Your task to perform on an android device: turn off location Image 0: 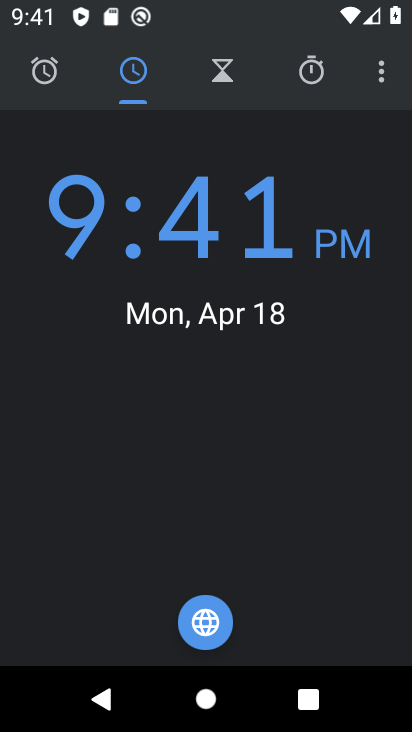
Step 0: press home button
Your task to perform on an android device: turn off location Image 1: 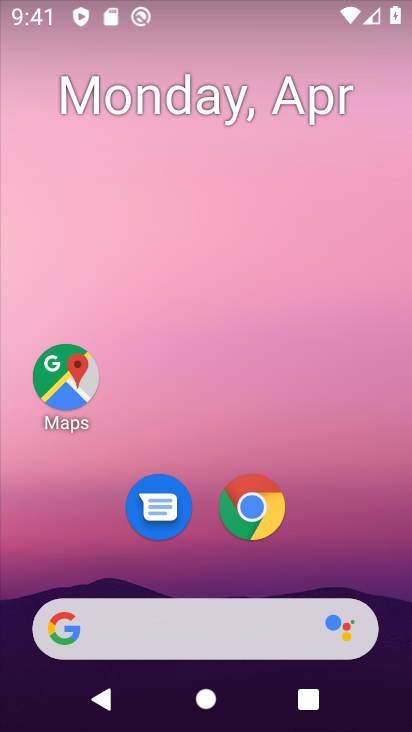
Step 1: drag from (332, 543) to (280, 188)
Your task to perform on an android device: turn off location Image 2: 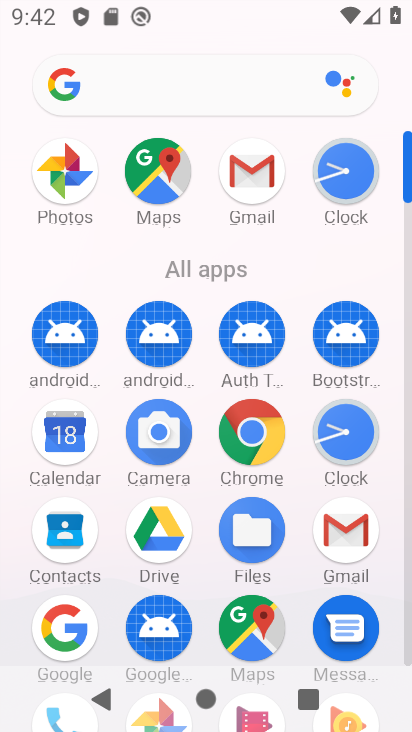
Step 2: drag from (205, 285) to (204, 168)
Your task to perform on an android device: turn off location Image 3: 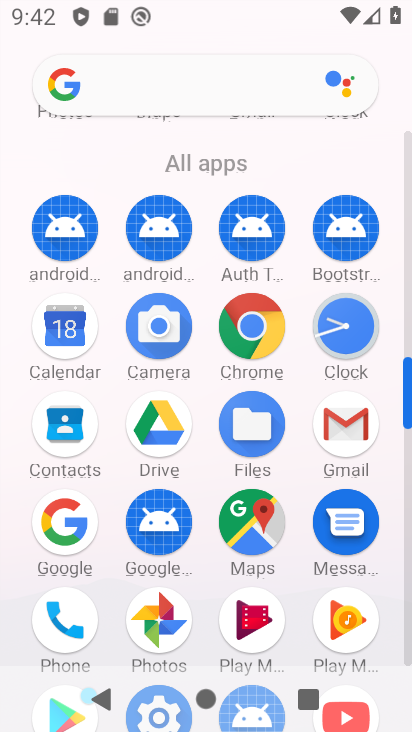
Step 3: drag from (200, 572) to (199, 315)
Your task to perform on an android device: turn off location Image 4: 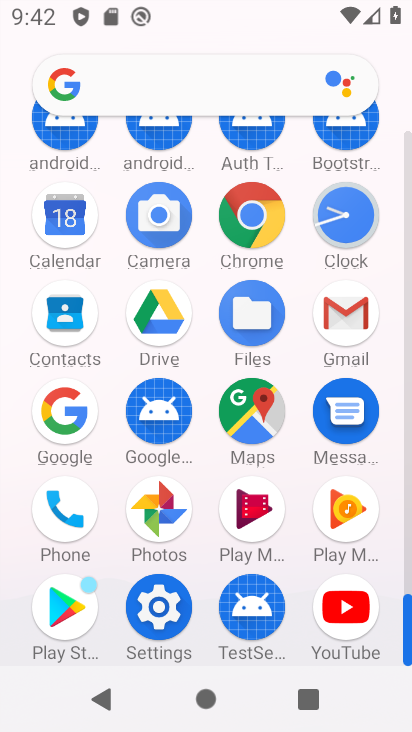
Step 4: click (171, 606)
Your task to perform on an android device: turn off location Image 5: 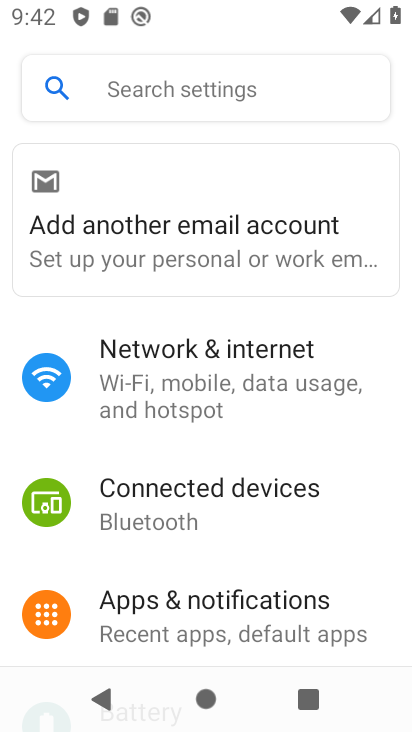
Step 5: drag from (256, 607) to (240, 237)
Your task to perform on an android device: turn off location Image 6: 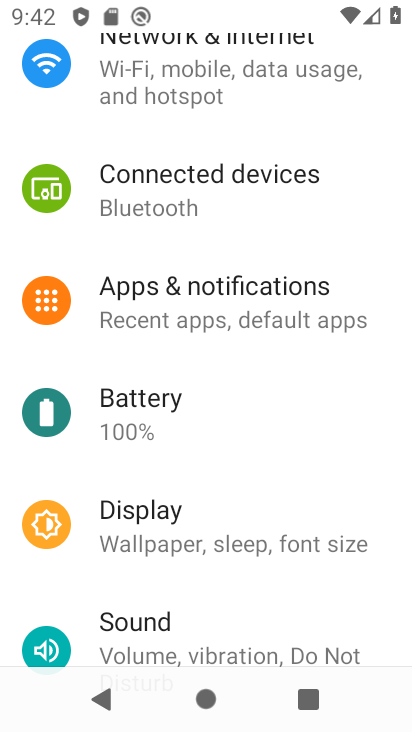
Step 6: drag from (232, 605) to (227, 327)
Your task to perform on an android device: turn off location Image 7: 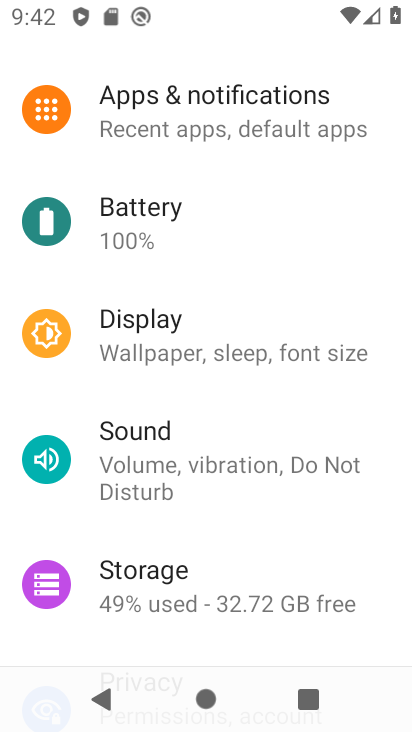
Step 7: drag from (191, 615) to (196, 268)
Your task to perform on an android device: turn off location Image 8: 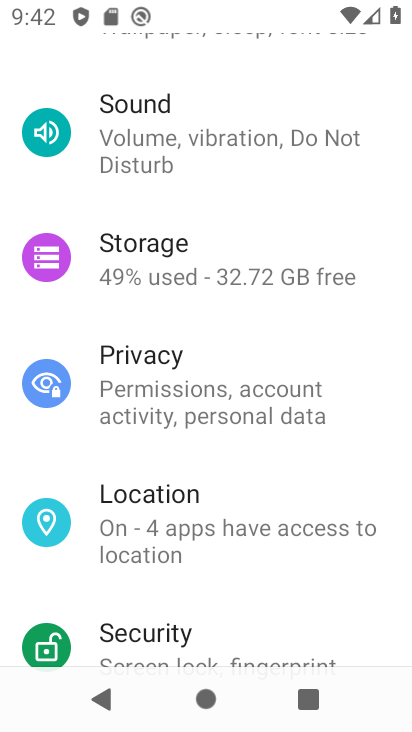
Step 8: click (156, 518)
Your task to perform on an android device: turn off location Image 9: 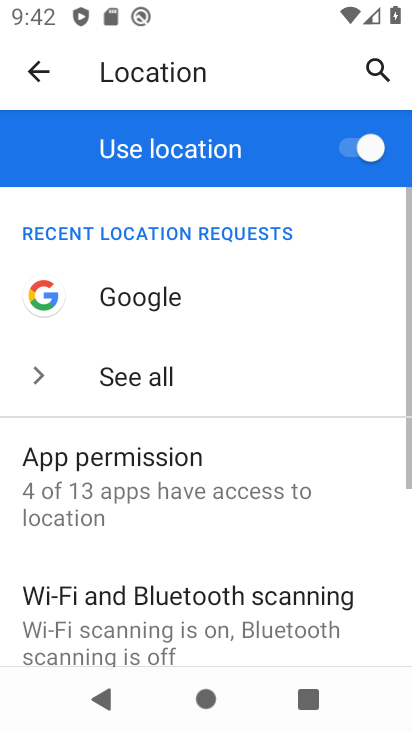
Step 9: click (351, 152)
Your task to perform on an android device: turn off location Image 10: 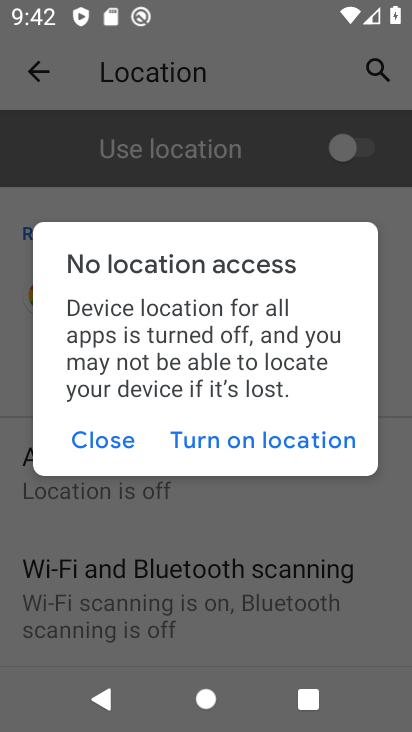
Step 10: task complete